Your task to perform on an android device: Open sound settings Image 0: 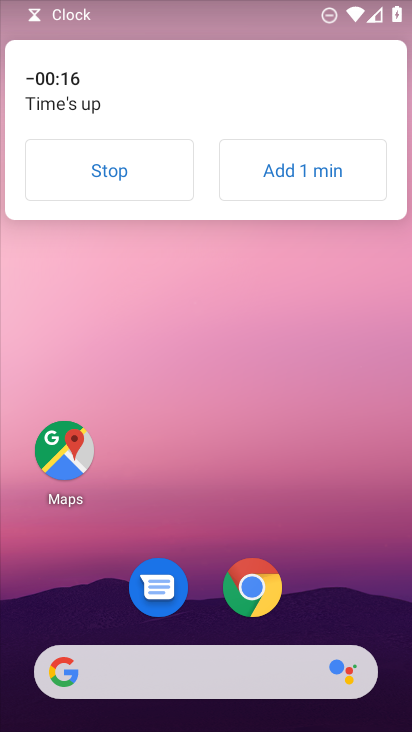
Step 0: click (129, 180)
Your task to perform on an android device: Open sound settings Image 1: 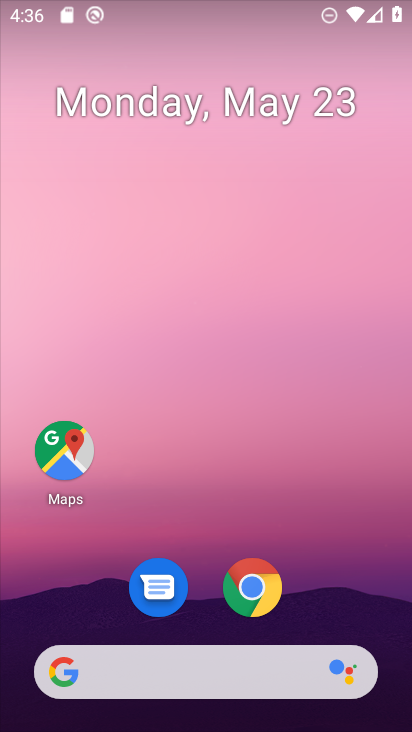
Step 1: drag from (202, 615) to (210, 16)
Your task to perform on an android device: Open sound settings Image 2: 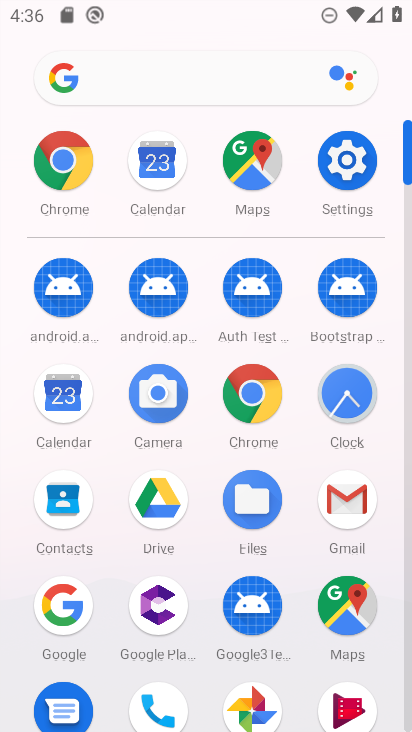
Step 2: click (343, 157)
Your task to perform on an android device: Open sound settings Image 3: 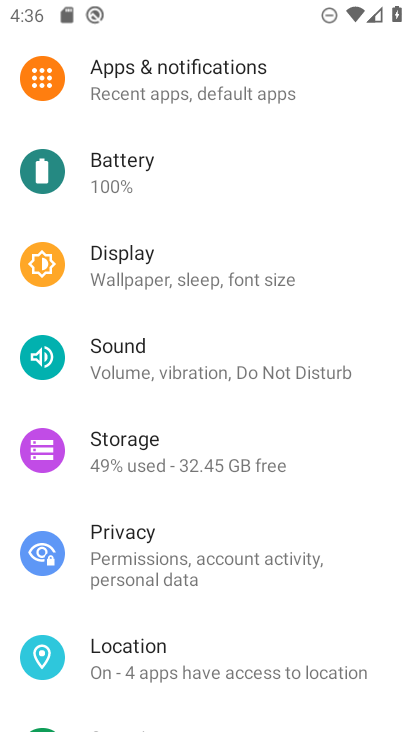
Step 3: click (182, 367)
Your task to perform on an android device: Open sound settings Image 4: 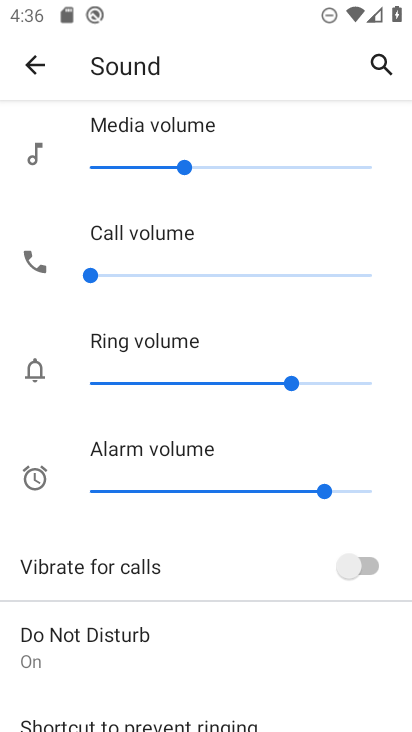
Step 4: task complete